Your task to perform on an android device: open a bookmark in the chrome app Image 0: 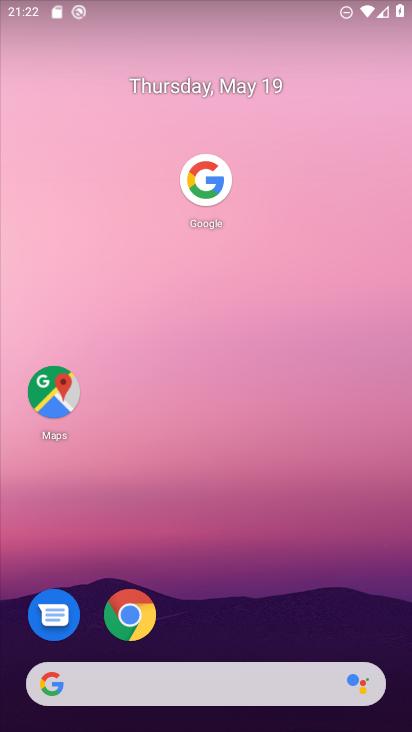
Step 0: click (122, 619)
Your task to perform on an android device: open a bookmark in the chrome app Image 1: 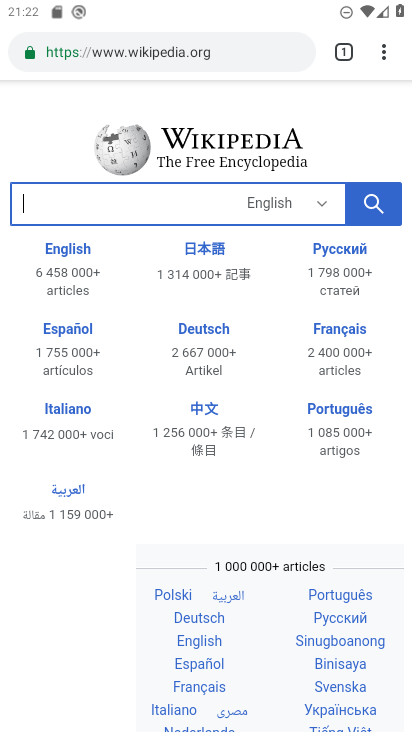
Step 1: click (375, 50)
Your task to perform on an android device: open a bookmark in the chrome app Image 2: 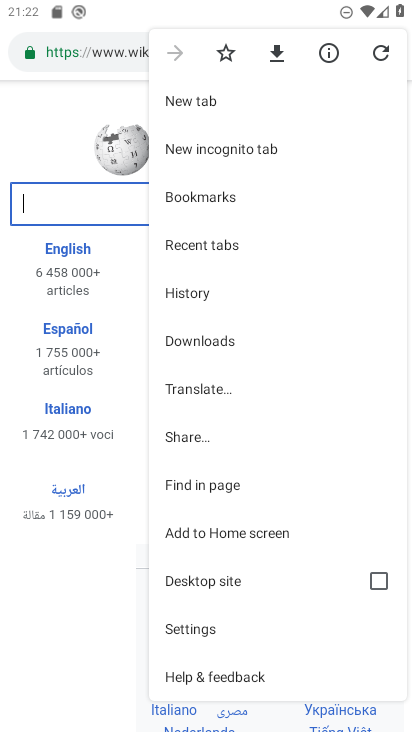
Step 2: drag from (135, 171) to (302, 79)
Your task to perform on an android device: open a bookmark in the chrome app Image 3: 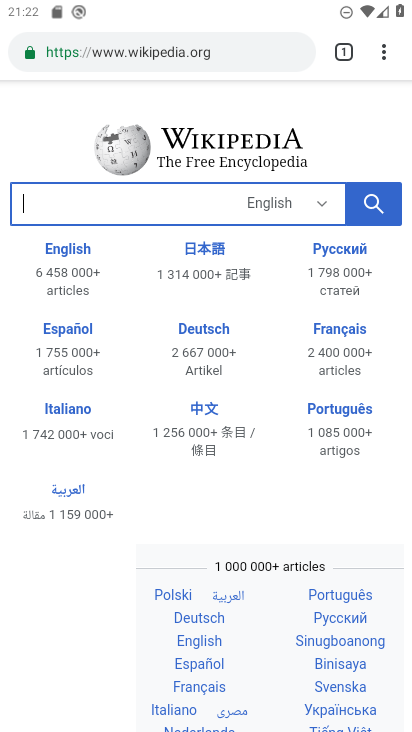
Step 3: click (381, 45)
Your task to perform on an android device: open a bookmark in the chrome app Image 4: 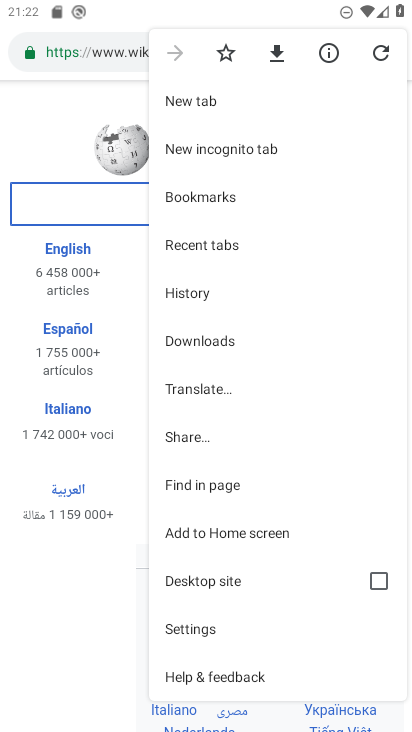
Step 4: click (209, 202)
Your task to perform on an android device: open a bookmark in the chrome app Image 5: 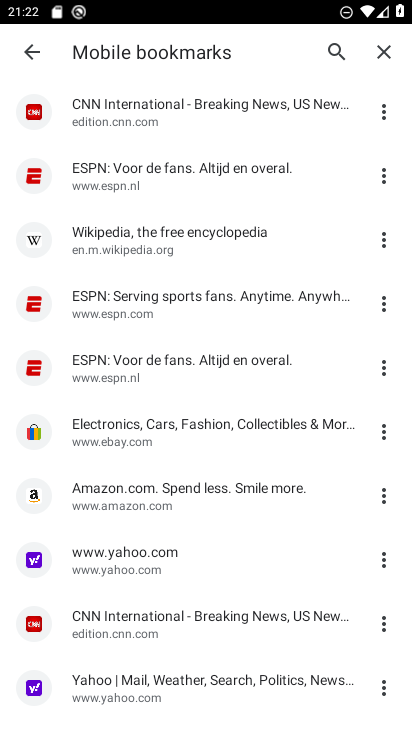
Step 5: click (134, 302)
Your task to perform on an android device: open a bookmark in the chrome app Image 6: 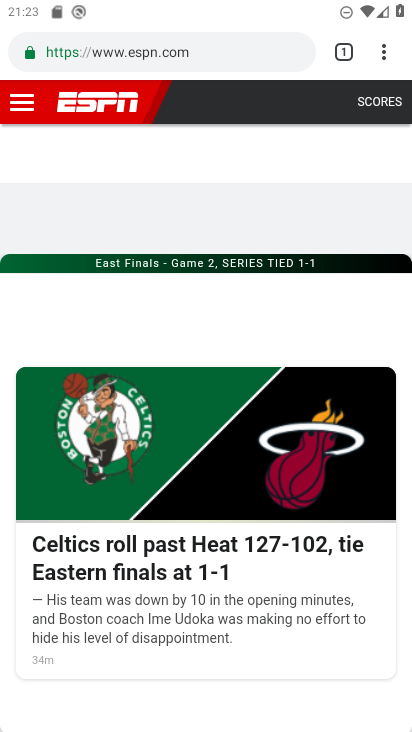
Step 6: task complete